Your task to perform on an android device: Turn off the flashlight Image 0: 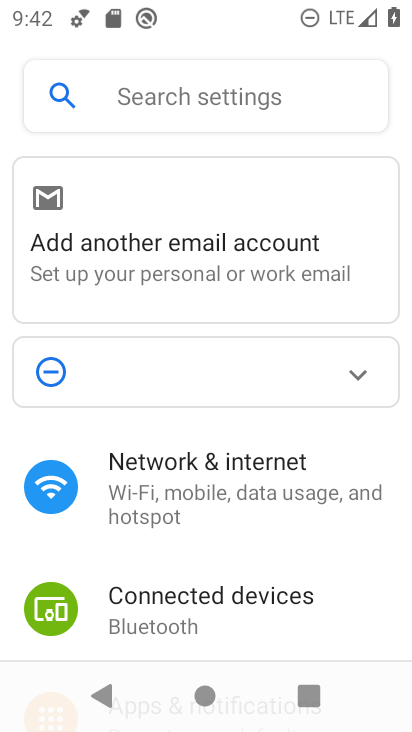
Step 0: press home button
Your task to perform on an android device: Turn off the flashlight Image 1: 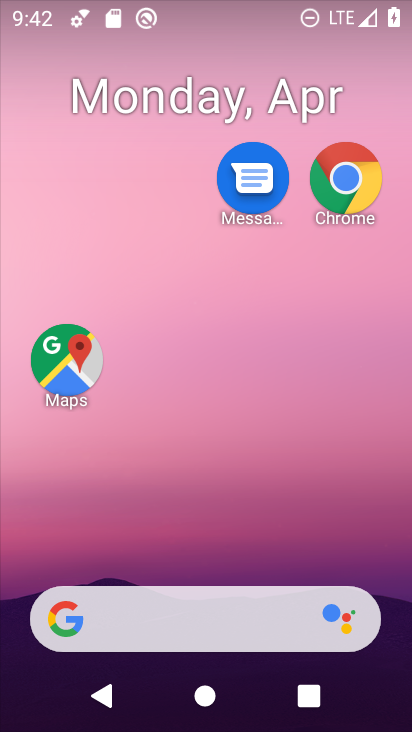
Step 1: task complete